Your task to perform on an android device: Show me popular games on the Play Store Image 0: 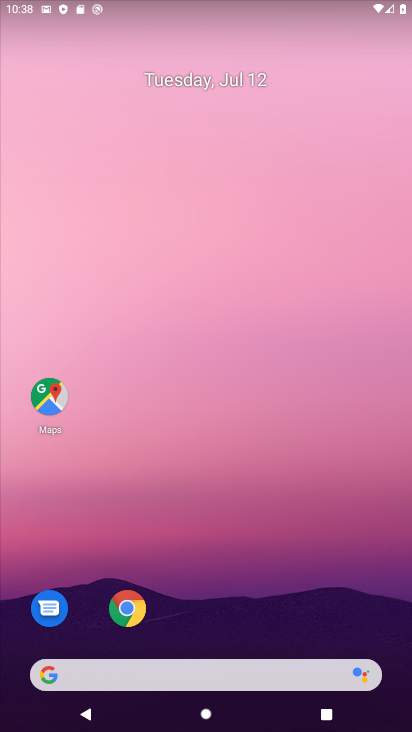
Step 0: drag from (191, 610) to (181, 31)
Your task to perform on an android device: Show me popular games on the Play Store Image 1: 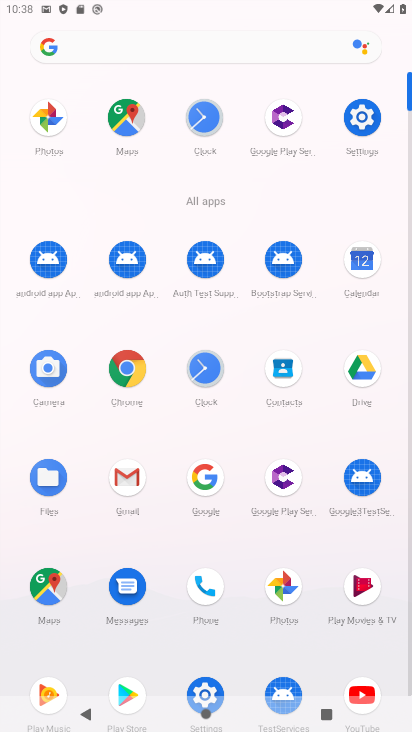
Step 1: click (123, 683)
Your task to perform on an android device: Show me popular games on the Play Store Image 2: 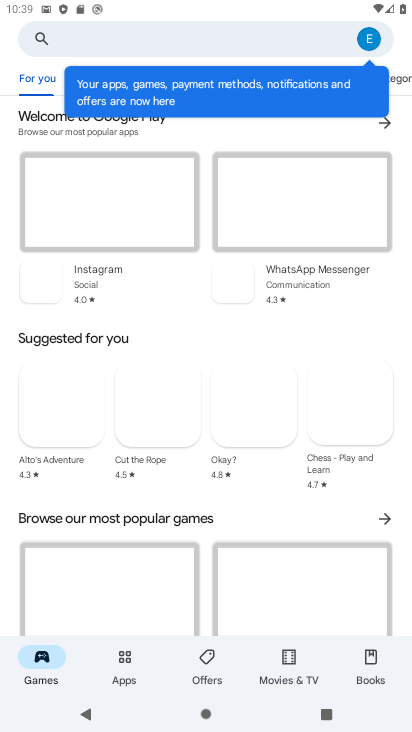
Step 2: click (120, 79)
Your task to perform on an android device: Show me popular games on the Play Store Image 3: 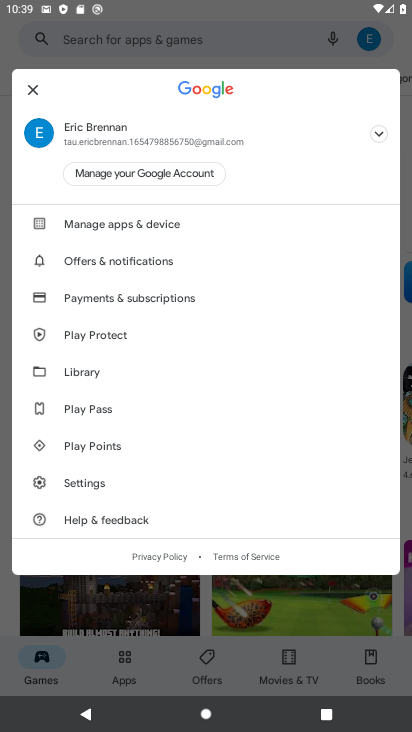
Step 3: click (30, 90)
Your task to perform on an android device: Show me popular games on the Play Store Image 4: 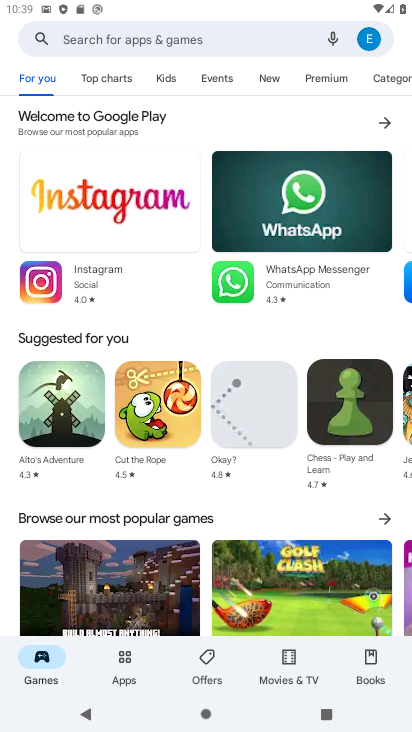
Step 4: click (128, 79)
Your task to perform on an android device: Show me popular games on the Play Store Image 5: 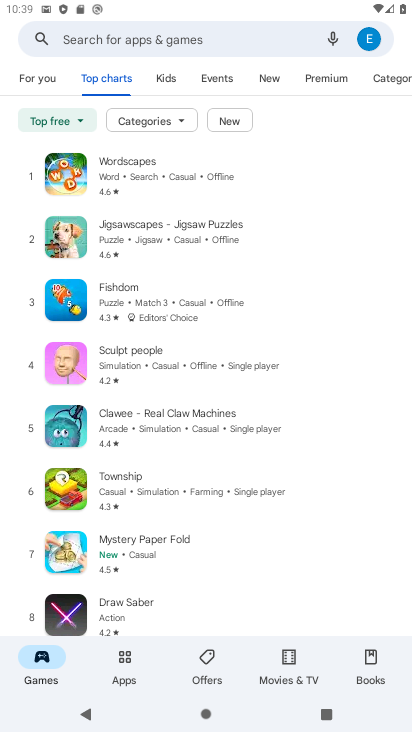
Step 5: task complete